Your task to perform on an android device: Check the weather Image 0: 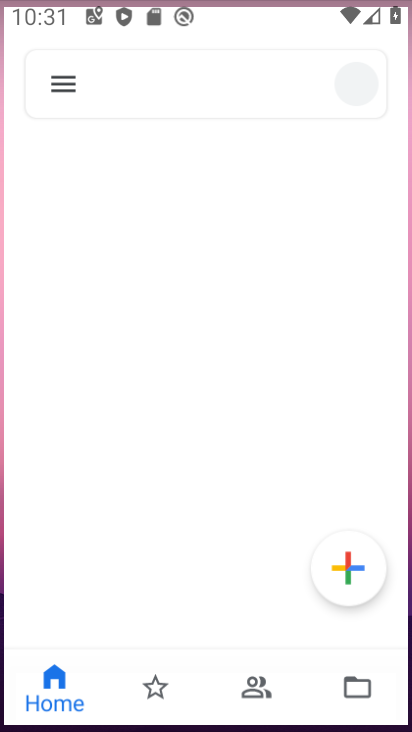
Step 0: press home button
Your task to perform on an android device: Check the weather Image 1: 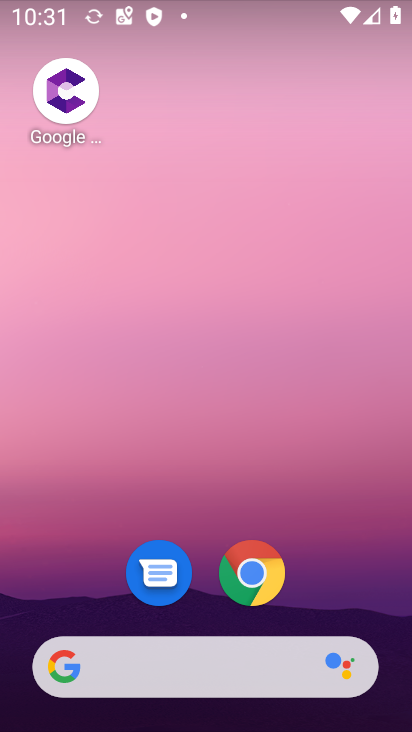
Step 1: drag from (16, 352) to (411, 347)
Your task to perform on an android device: Check the weather Image 2: 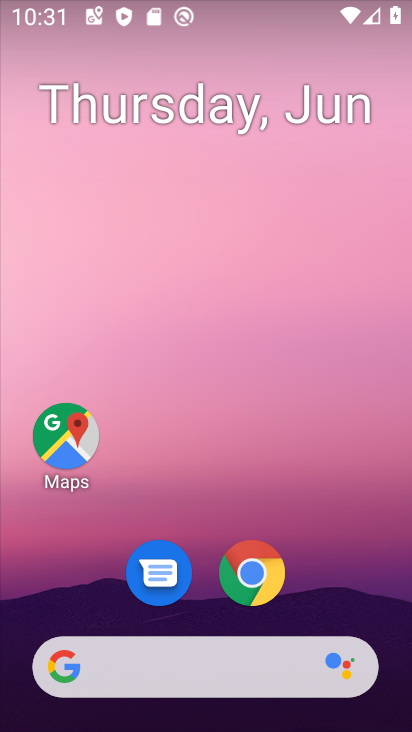
Step 2: drag from (12, 294) to (408, 16)
Your task to perform on an android device: Check the weather Image 3: 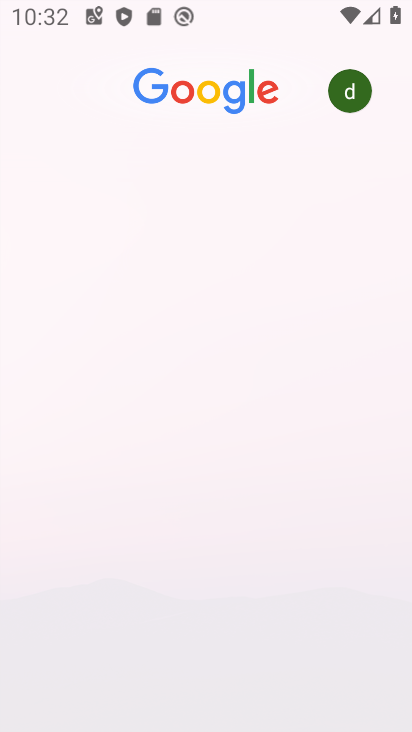
Step 3: drag from (189, 493) to (218, 154)
Your task to perform on an android device: Check the weather Image 4: 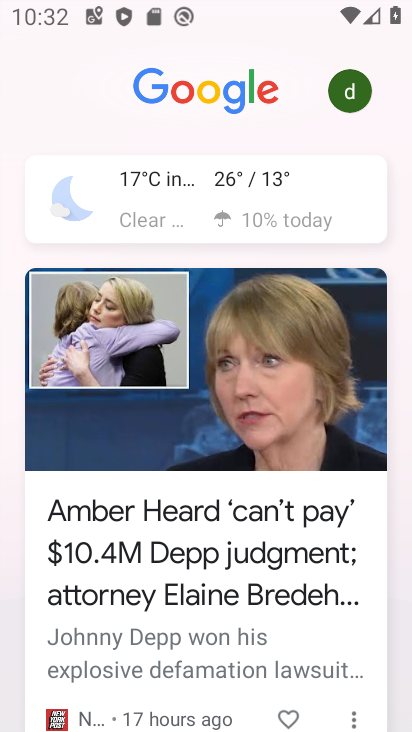
Step 4: click (259, 172)
Your task to perform on an android device: Check the weather Image 5: 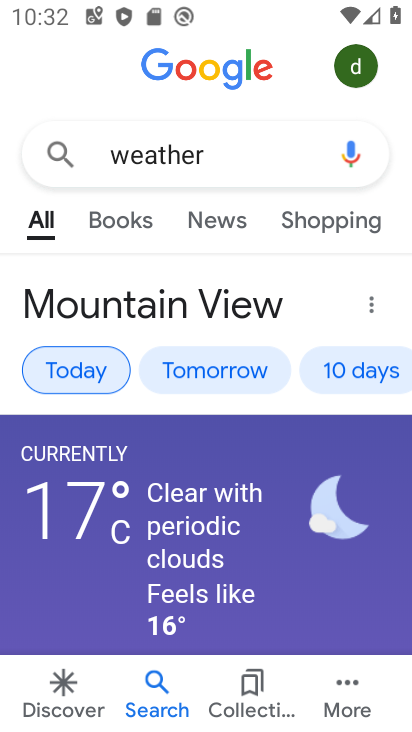
Step 5: task complete